Your task to perform on an android device: turn on priority inbox in the gmail app Image 0: 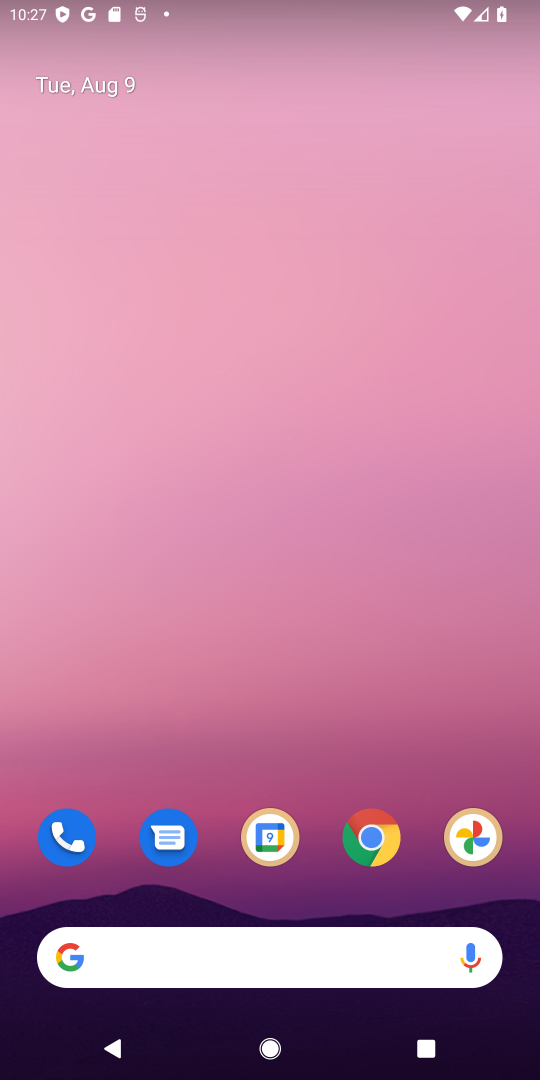
Step 0: drag from (290, 705) to (225, 10)
Your task to perform on an android device: turn on priority inbox in the gmail app Image 1: 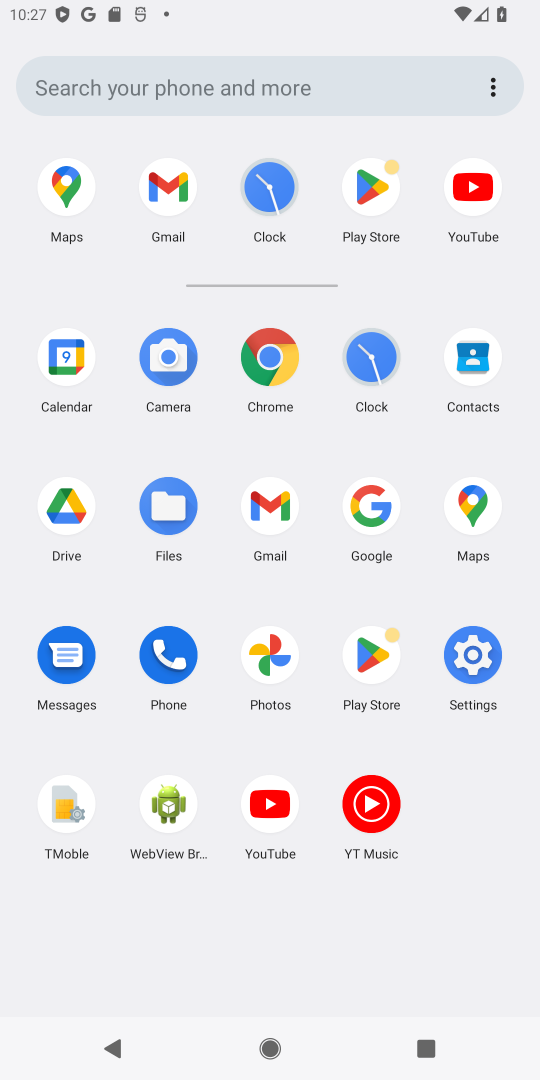
Step 1: click (277, 499)
Your task to perform on an android device: turn on priority inbox in the gmail app Image 2: 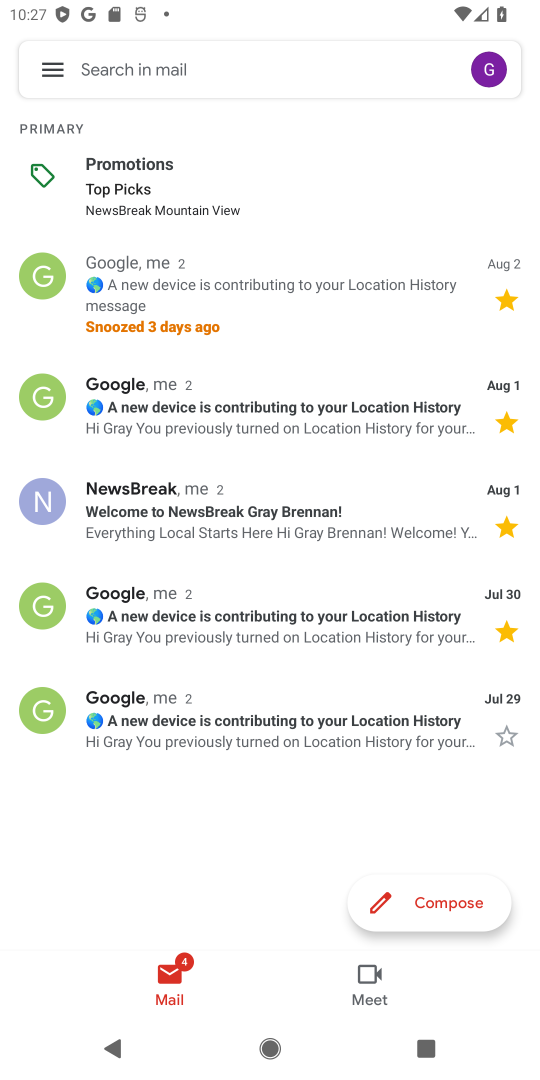
Step 2: click (54, 65)
Your task to perform on an android device: turn on priority inbox in the gmail app Image 3: 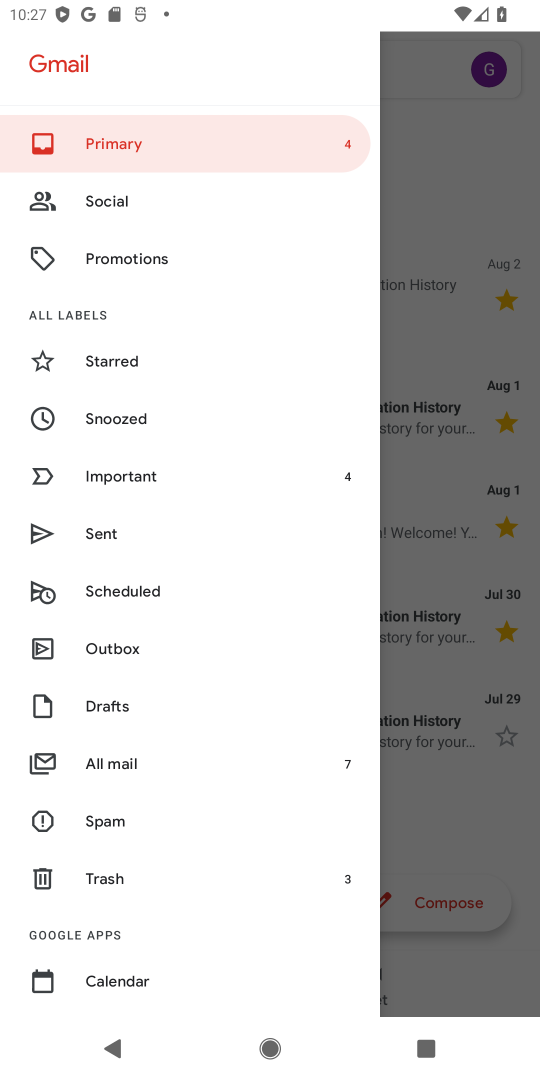
Step 3: drag from (101, 865) to (64, 430)
Your task to perform on an android device: turn on priority inbox in the gmail app Image 4: 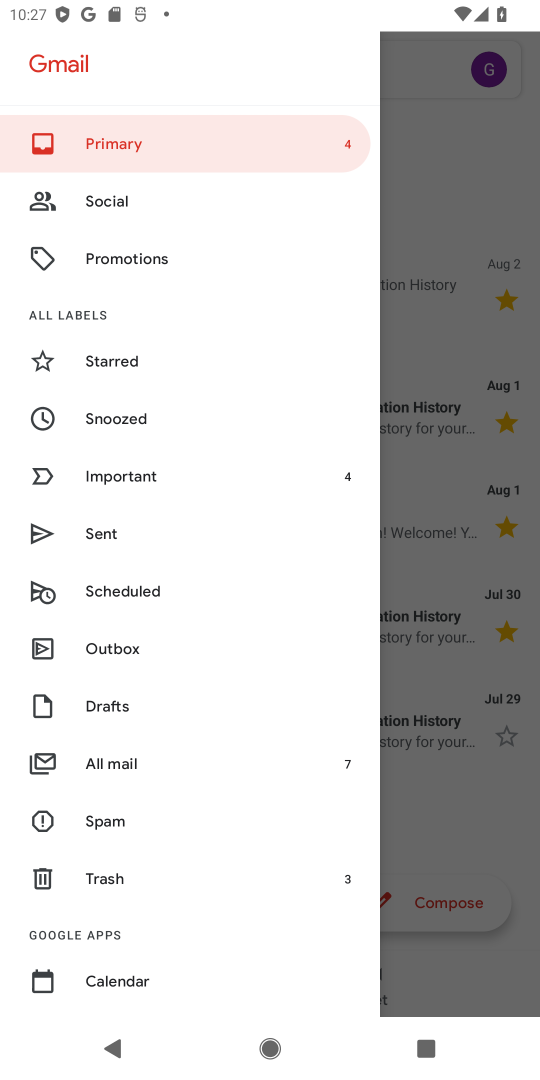
Step 4: drag from (127, 903) to (76, 499)
Your task to perform on an android device: turn on priority inbox in the gmail app Image 5: 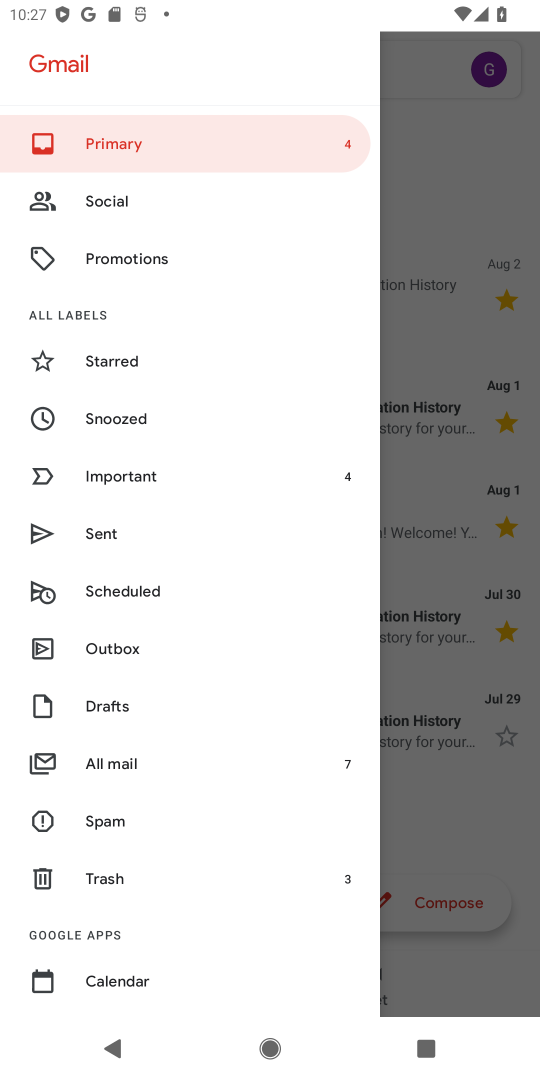
Step 5: drag from (113, 781) to (89, 389)
Your task to perform on an android device: turn on priority inbox in the gmail app Image 6: 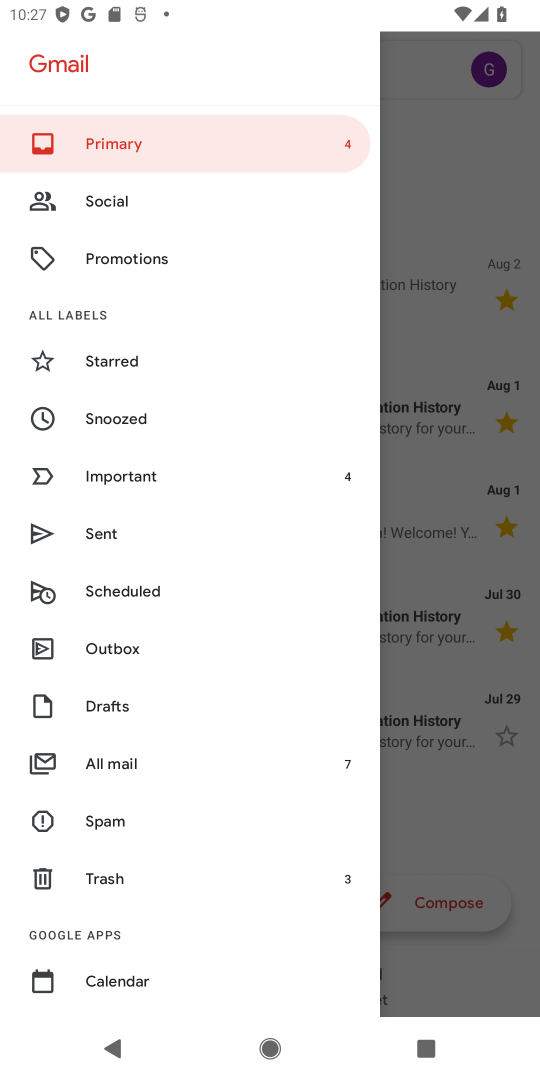
Step 6: drag from (81, 902) to (88, 477)
Your task to perform on an android device: turn on priority inbox in the gmail app Image 7: 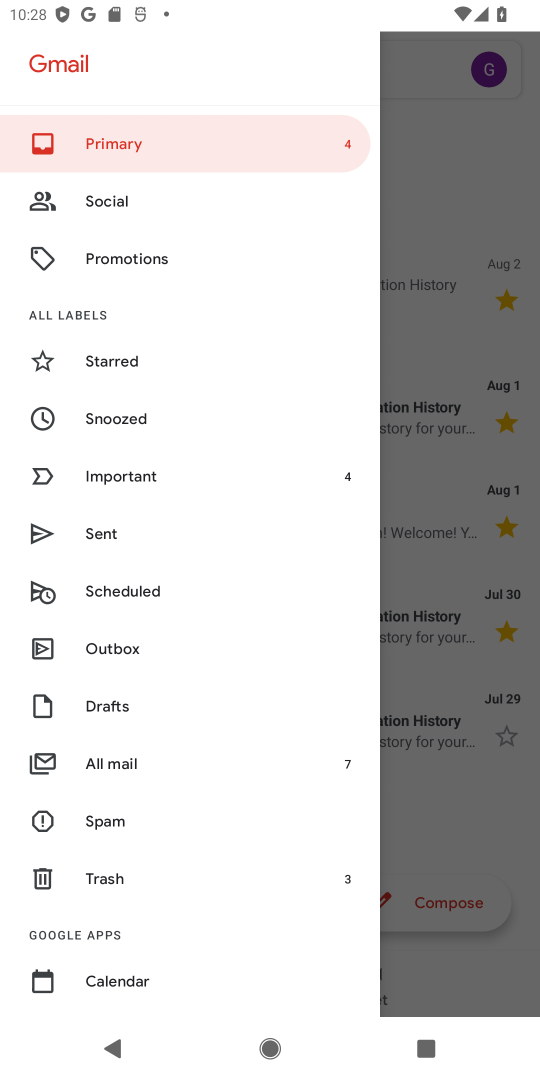
Step 7: drag from (137, 964) to (113, 722)
Your task to perform on an android device: turn on priority inbox in the gmail app Image 8: 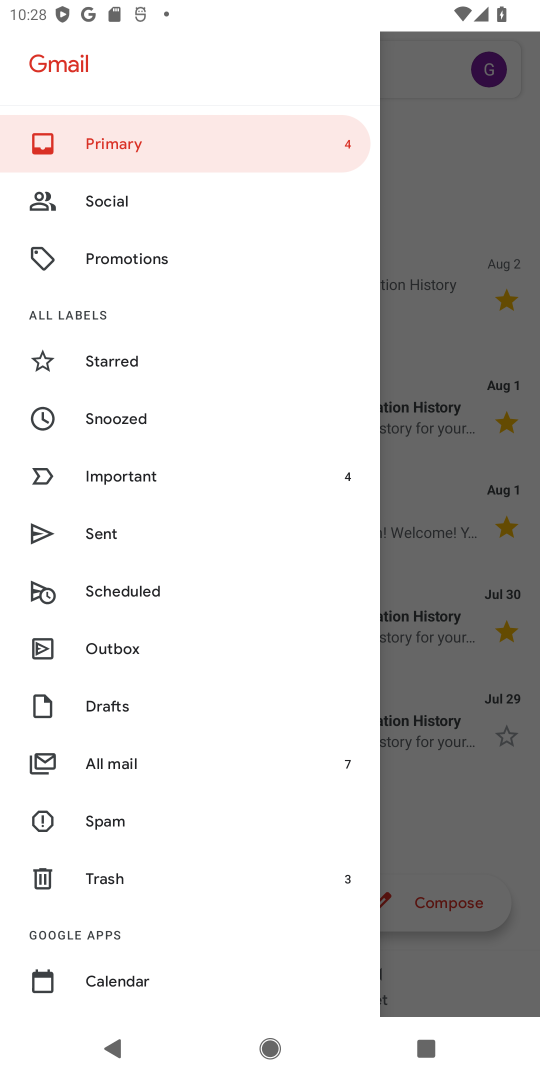
Step 8: drag from (85, 882) to (94, 492)
Your task to perform on an android device: turn on priority inbox in the gmail app Image 9: 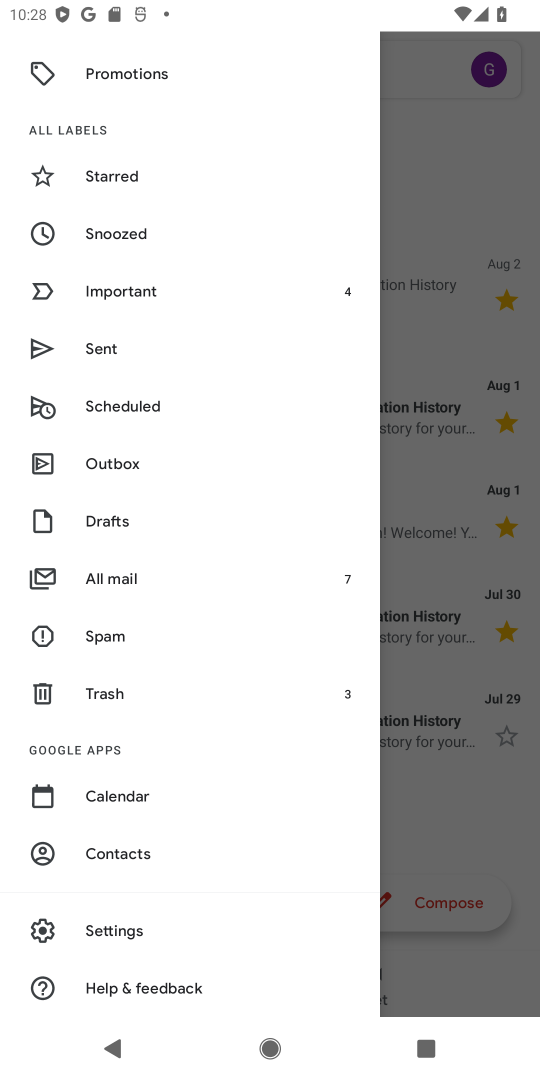
Step 9: click (116, 930)
Your task to perform on an android device: turn on priority inbox in the gmail app Image 10: 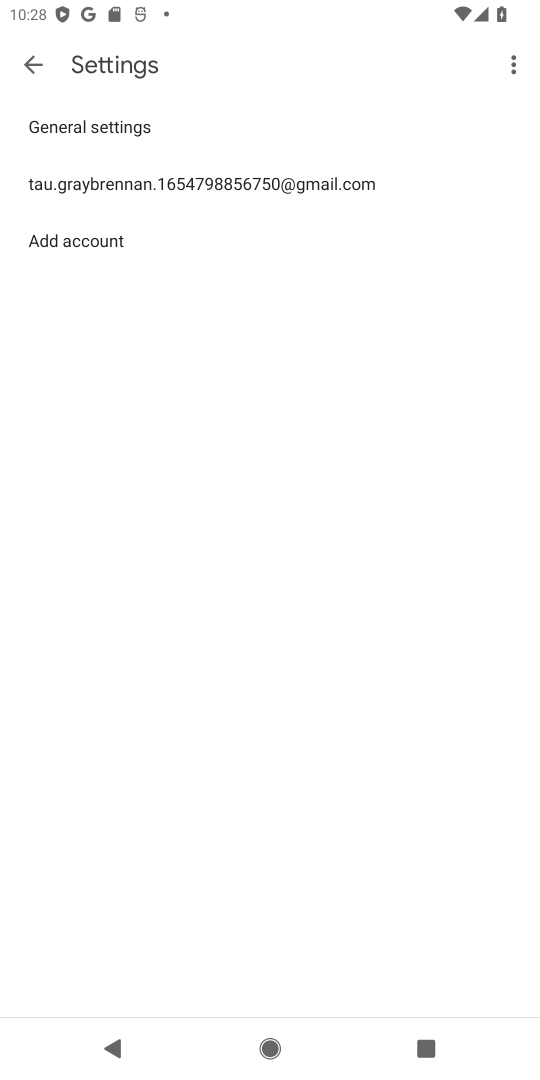
Step 10: click (233, 182)
Your task to perform on an android device: turn on priority inbox in the gmail app Image 11: 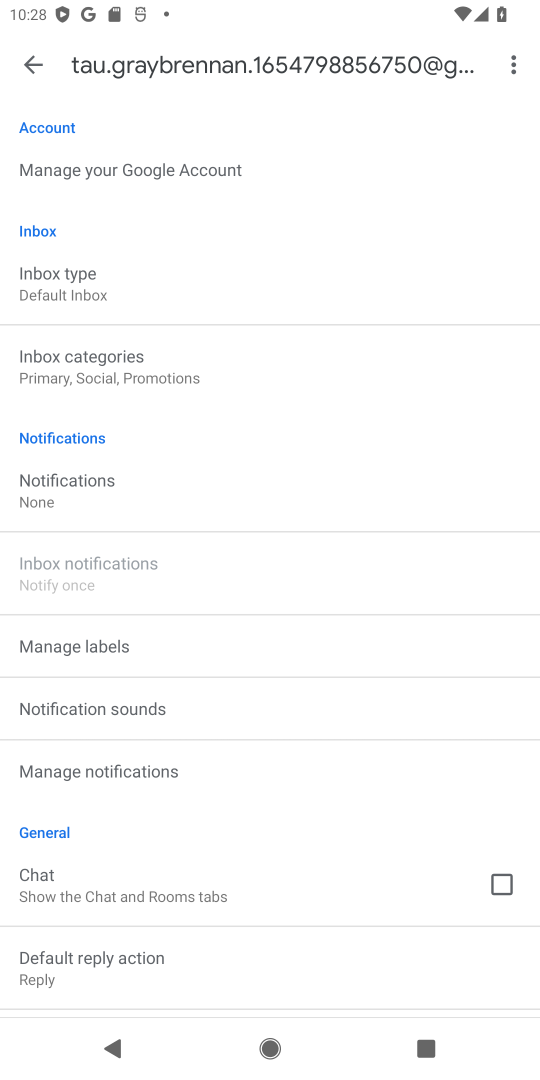
Step 11: click (64, 291)
Your task to perform on an android device: turn on priority inbox in the gmail app Image 12: 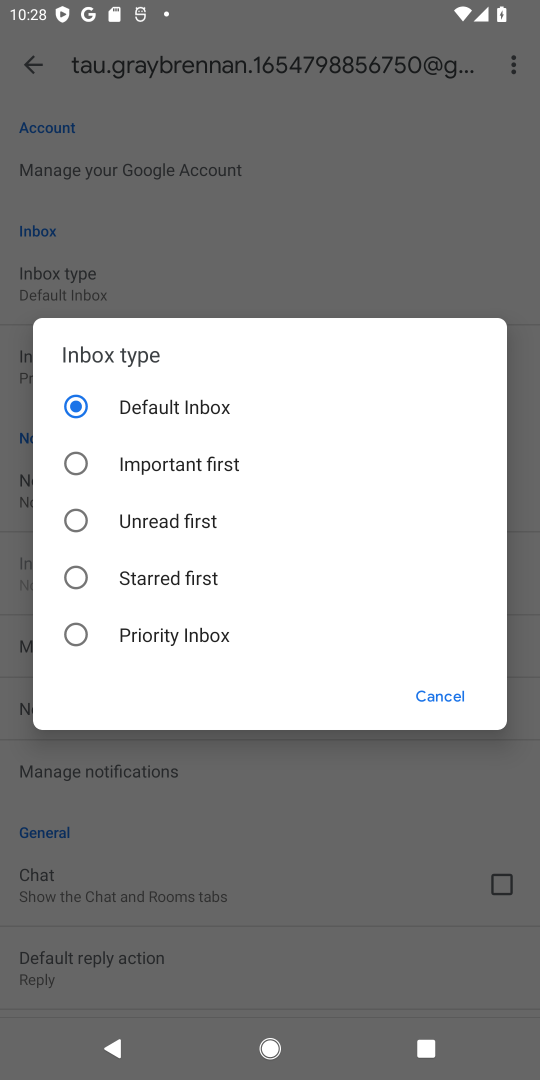
Step 12: click (75, 631)
Your task to perform on an android device: turn on priority inbox in the gmail app Image 13: 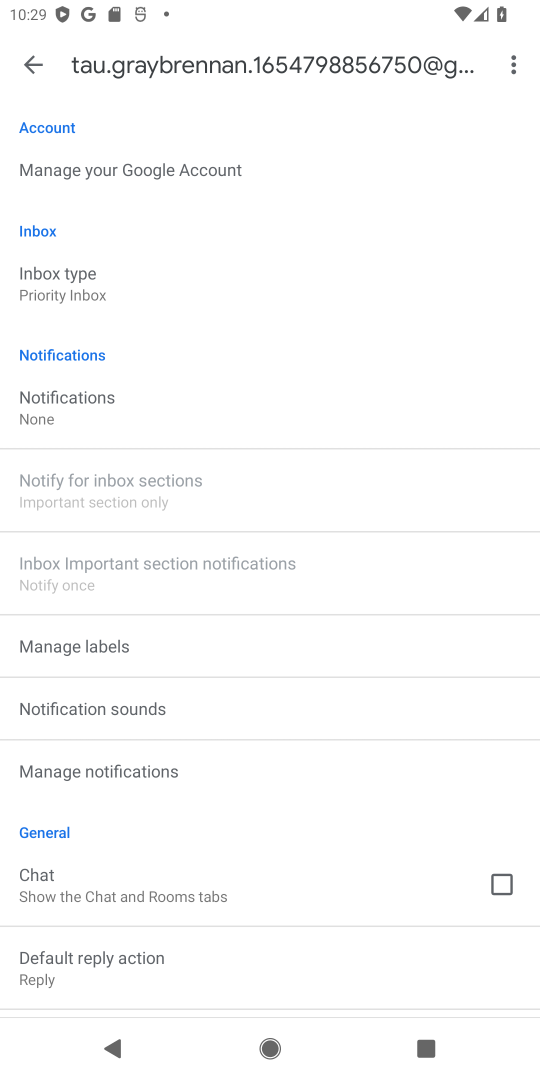
Step 13: task complete